Your task to perform on an android device: delete browsing data in the chrome app Image 0: 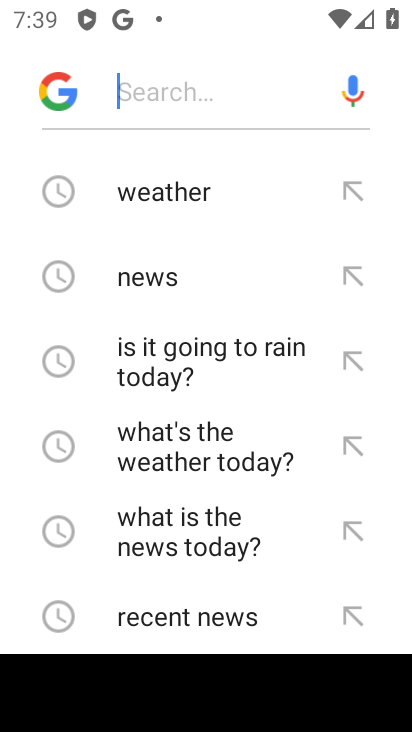
Step 0: press back button
Your task to perform on an android device: delete browsing data in the chrome app Image 1: 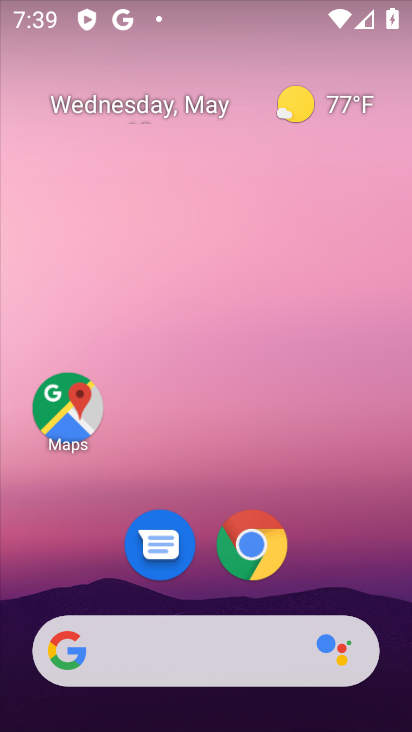
Step 1: click (254, 543)
Your task to perform on an android device: delete browsing data in the chrome app Image 2: 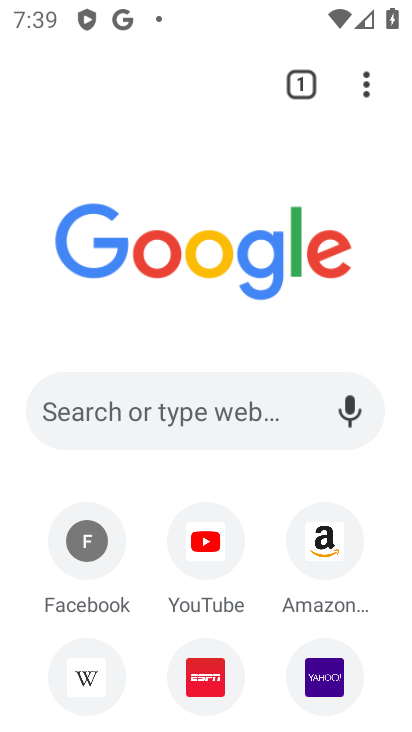
Step 2: click (362, 84)
Your task to perform on an android device: delete browsing data in the chrome app Image 3: 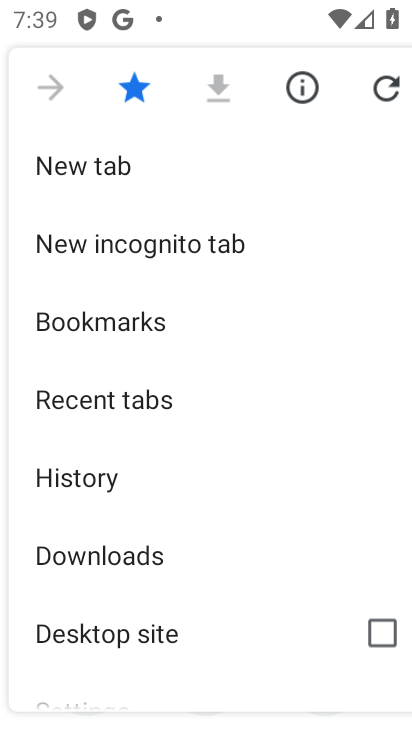
Step 3: drag from (110, 506) to (126, 465)
Your task to perform on an android device: delete browsing data in the chrome app Image 4: 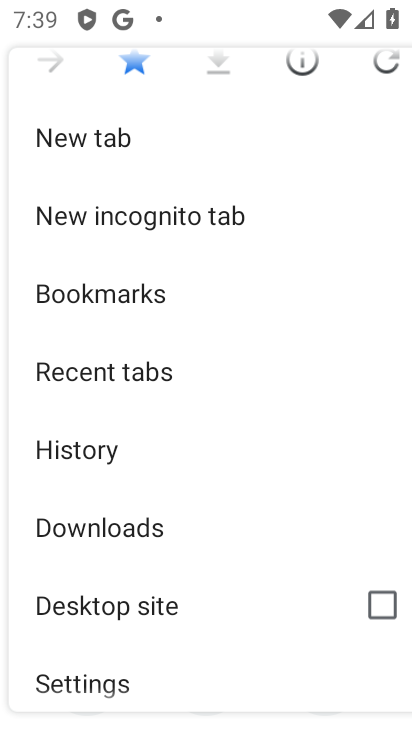
Step 4: drag from (104, 625) to (124, 473)
Your task to perform on an android device: delete browsing data in the chrome app Image 5: 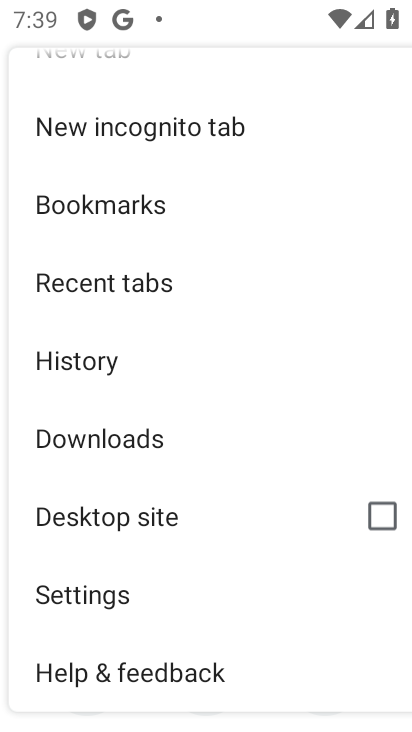
Step 5: click (75, 592)
Your task to perform on an android device: delete browsing data in the chrome app Image 6: 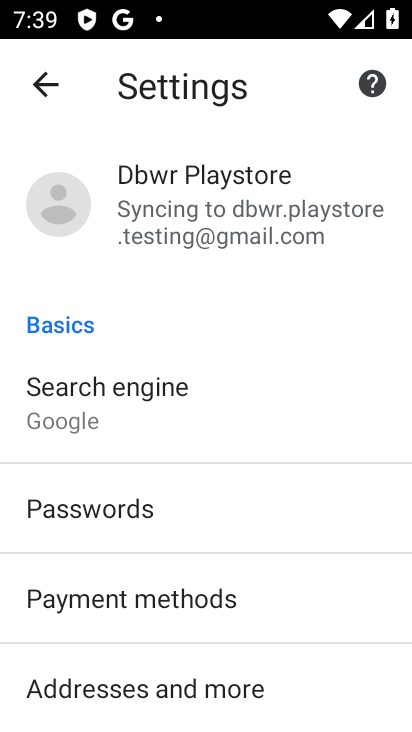
Step 6: drag from (163, 515) to (243, 413)
Your task to perform on an android device: delete browsing data in the chrome app Image 7: 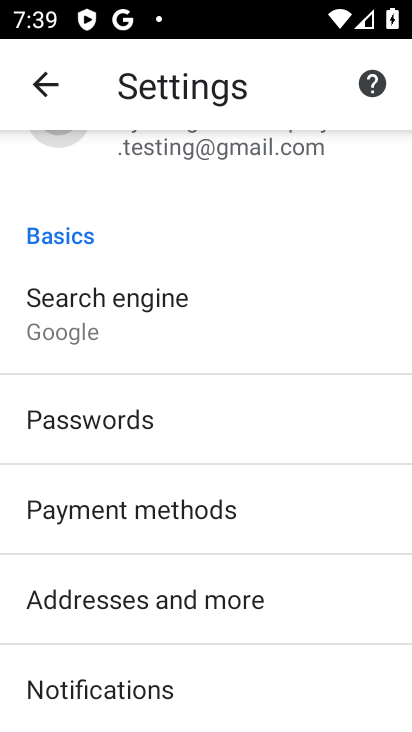
Step 7: drag from (148, 609) to (240, 468)
Your task to perform on an android device: delete browsing data in the chrome app Image 8: 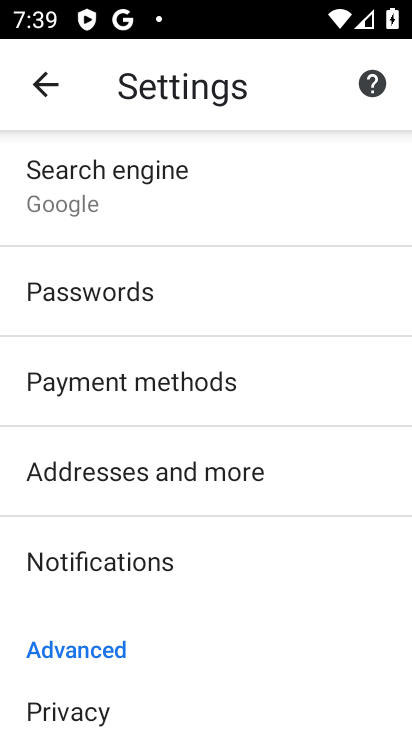
Step 8: drag from (156, 590) to (237, 479)
Your task to perform on an android device: delete browsing data in the chrome app Image 9: 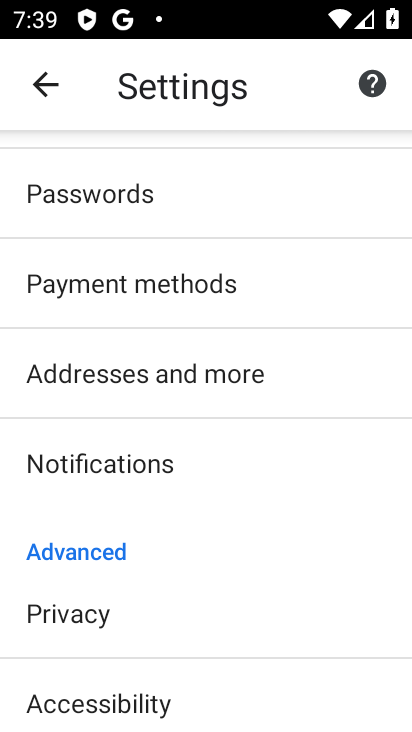
Step 9: click (55, 602)
Your task to perform on an android device: delete browsing data in the chrome app Image 10: 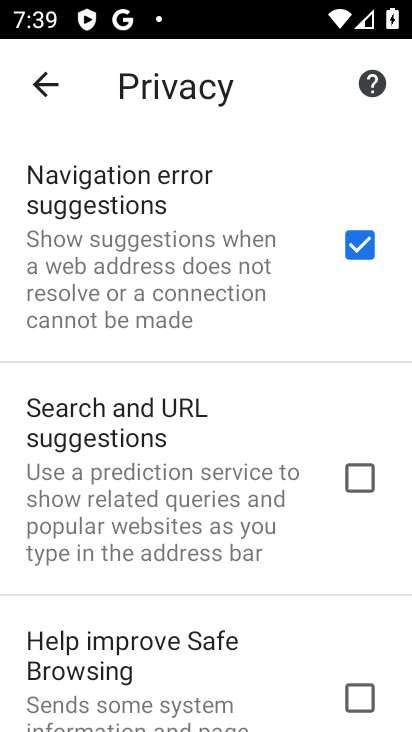
Step 10: drag from (160, 598) to (191, 444)
Your task to perform on an android device: delete browsing data in the chrome app Image 11: 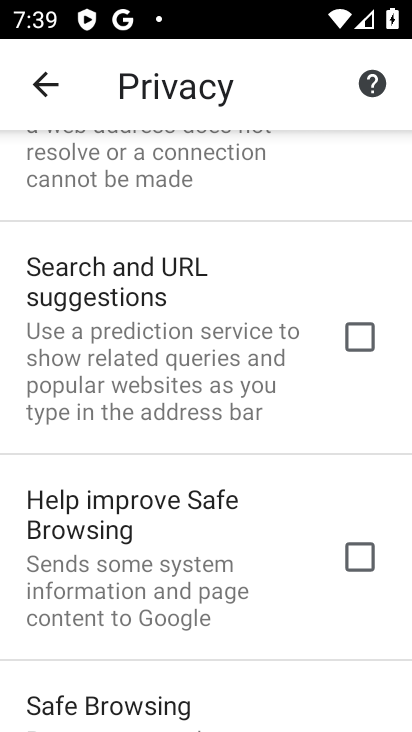
Step 11: drag from (156, 630) to (198, 497)
Your task to perform on an android device: delete browsing data in the chrome app Image 12: 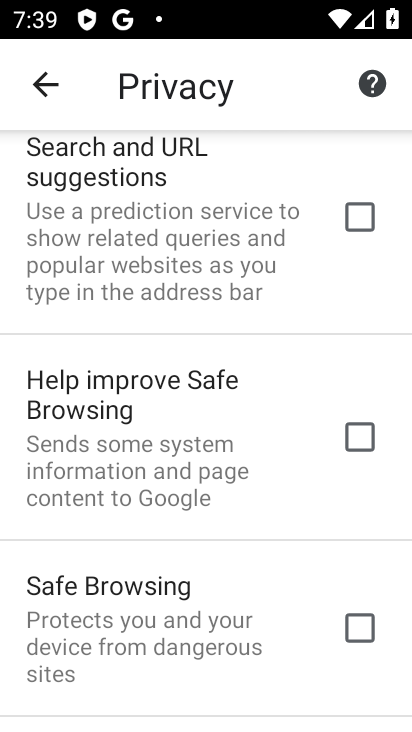
Step 12: drag from (169, 659) to (234, 456)
Your task to perform on an android device: delete browsing data in the chrome app Image 13: 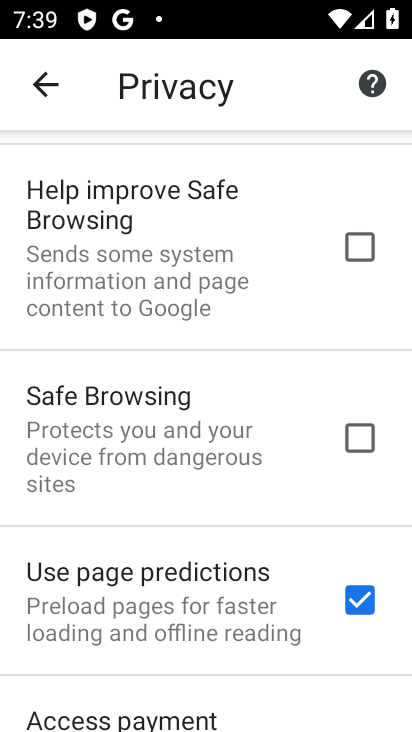
Step 13: drag from (185, 630) to (200, 429)
Your task to perform on an android device: delete browsing data in the chrome app Image 14: 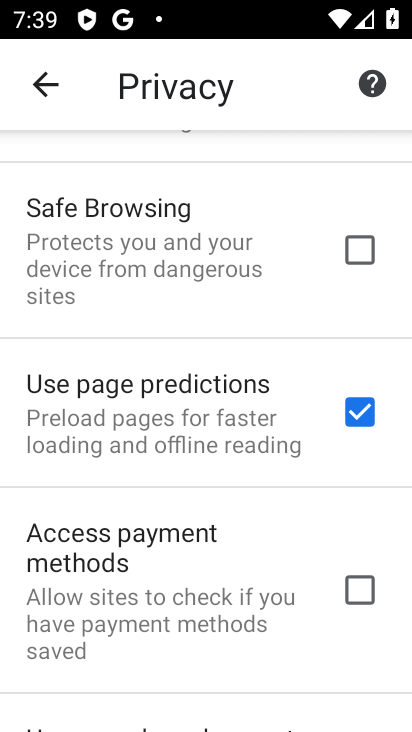
Step 14: drag from (134, 638) to (189, 421)
Your task to perform on an android device: delete browsing data in the chrome app Image 15: 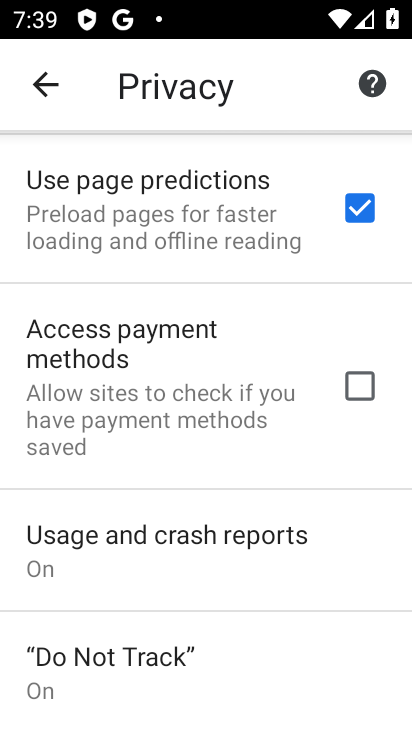
Step 15: drag from (147, 580) to (203, 396)
Your task to perform on an android device: delete browsing data in the chrome app Image 16: 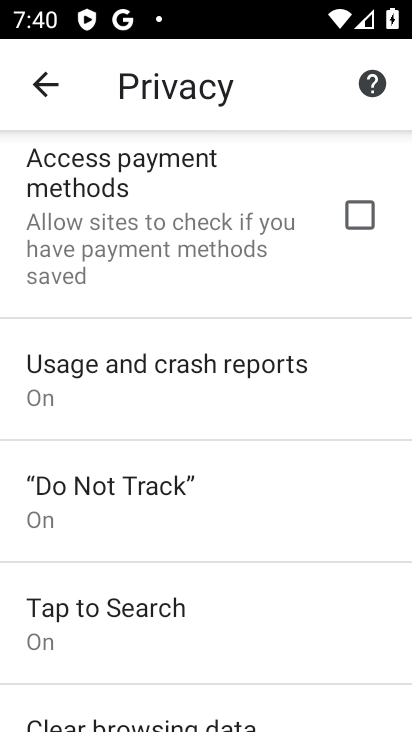
Step 16: drag from (122, 564) to (207, 379)
Your task to perform on an android device: delete browsing data in the chrome app Image 17: 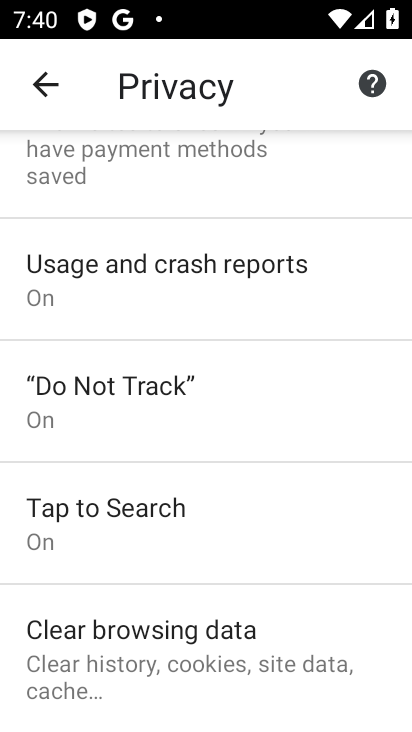
Step 17: click (126, 624)
Your task to perform on an android device: delete browsing data in the chrome app Image 18: 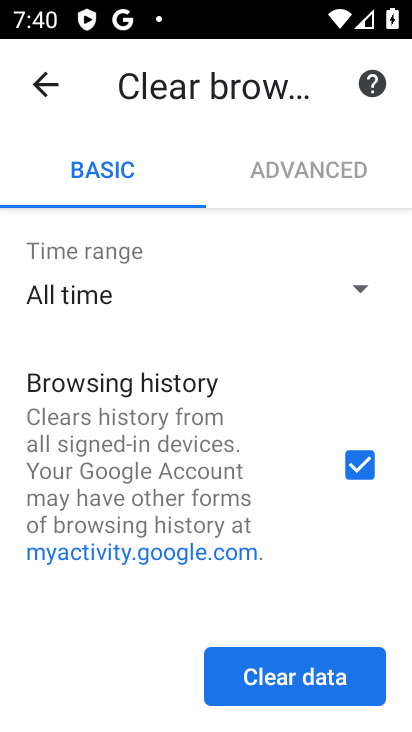
Step 18: click (307, 666)
Your task to perform on an android device: delete browsing data in the chrome app Image 19: 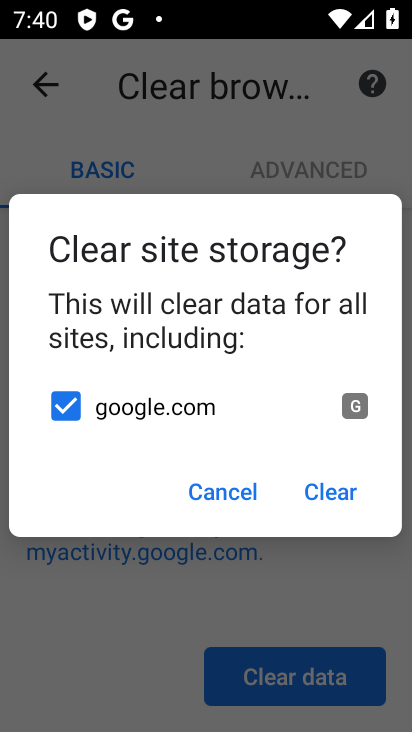
Step 19: click (328, 504)
Your task to perform on an android device: delete browsing data in the chrome app Image 20: 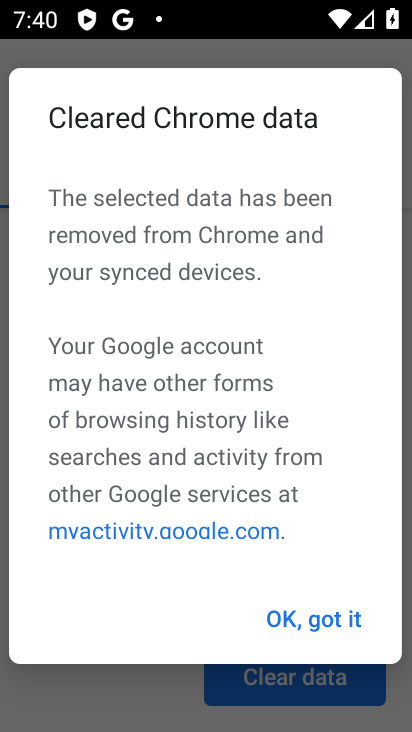
Step 20: click (321, 612)
Your task to perform on an android device: delete browsing data in the chrome app Image 21: 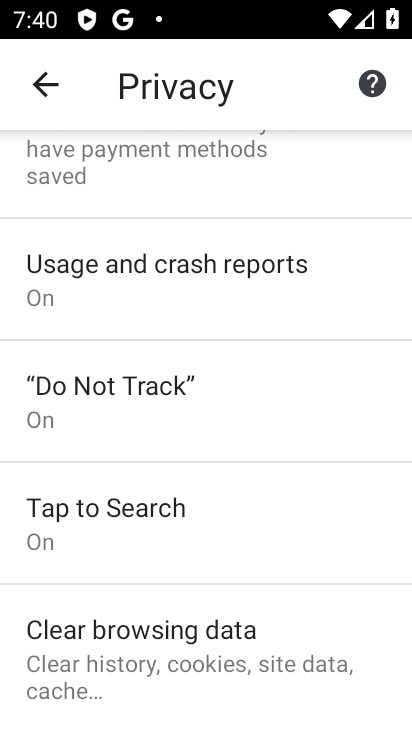
Step 21: task complete